Your task to perform on an android device: toggle priority inbox in the gmail app Image 0: 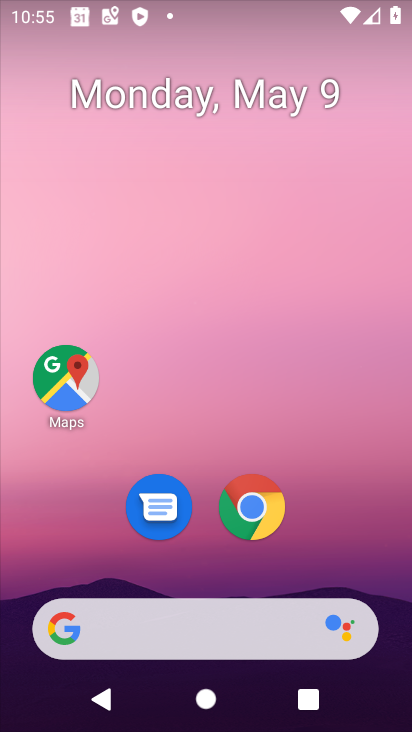
Step 0: drag from (211, 521) to (278, 64)
Your task to perform on an android device: toggle priority inbox in the gmail app Image 1: 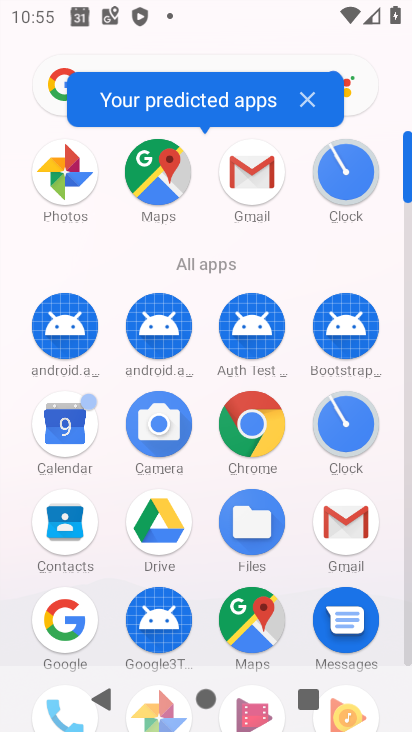
Step 1: click (242, 157)
Your task to perform on an android device: toggle priority inbox in the gmail app Image 2: 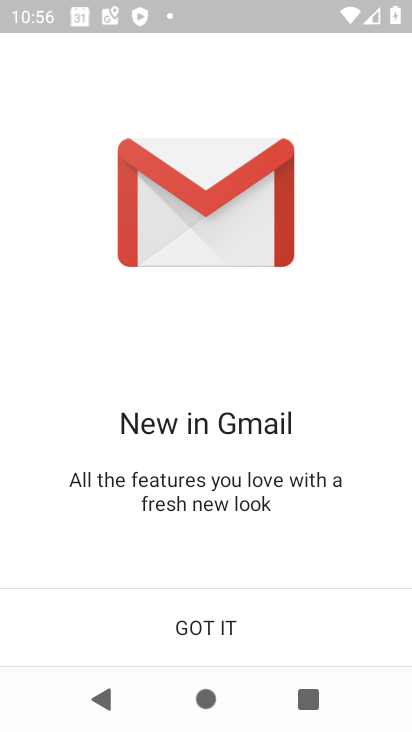
Step 2: click (221, 648)
Your task to perform on an android device: toggle priority inbox in the gmail app Image 3: 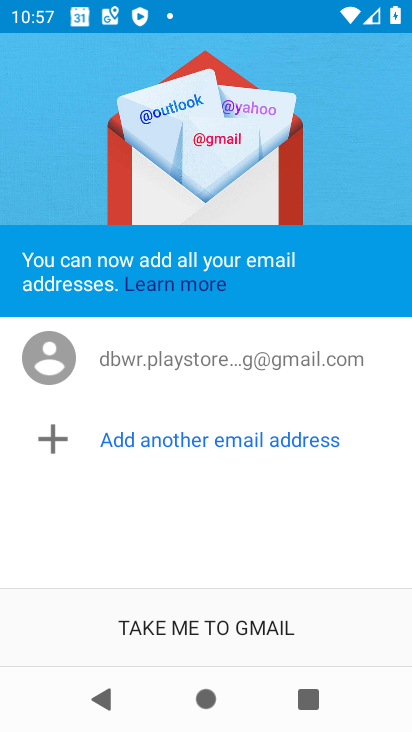
Step 3: click (195, 643)
Your task to perform on an android device: toggle priority inbox in the gmail app Image 4: 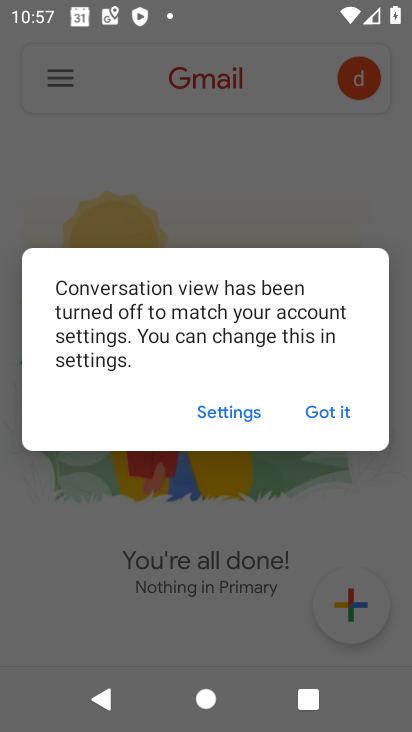
Step 4: click (323, 418)
Your task to perform on an android device: toggle priority inbox in the gmail app Image 5: 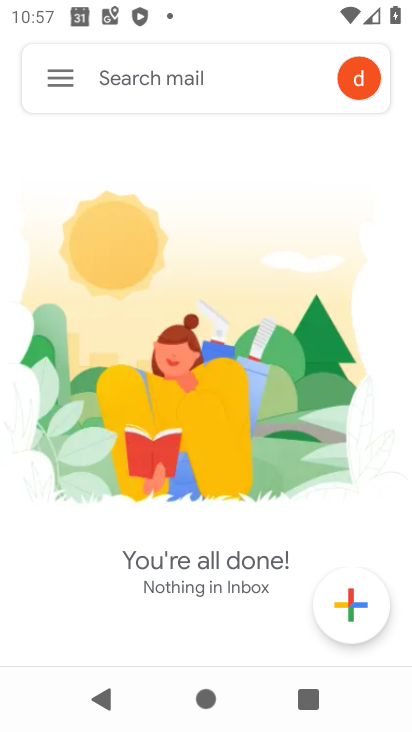
Step 5: click (72, 83)
Your task to perform on an android device: toggle priority inbox in the gmail app Image 6: 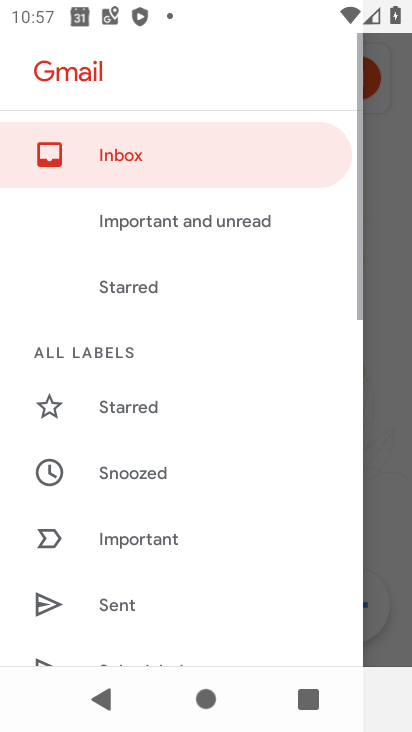
Step 6: drag from (204, 654) to (299, 21)
Your task to perform on an android device: toggle priority inbox in the gmail app Image 7: 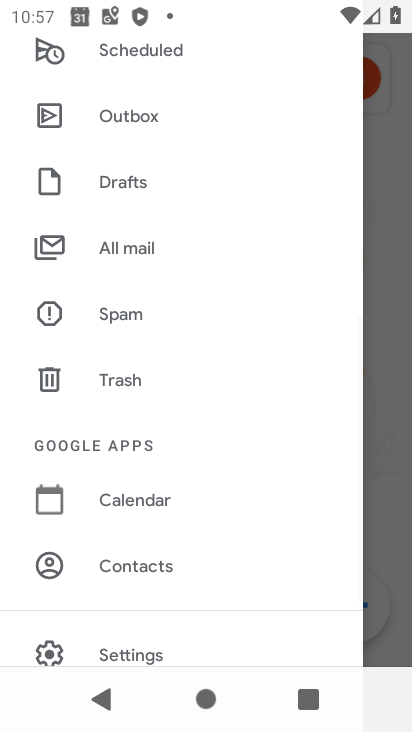
Step 7: drag from (182, 605) to (267, 52)
Your task to perform on an android device: toggle priority inbox in the gmail app Image 8: 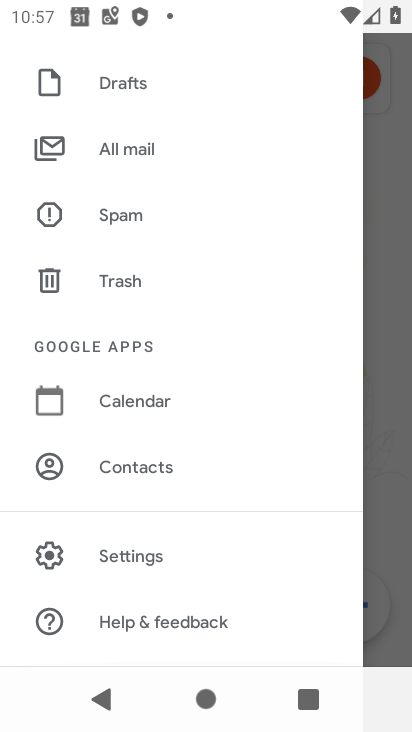
Step 8: click (137, 562)
Your task to perform on an android device: toggle priority inbox in the gmail app Image 9: 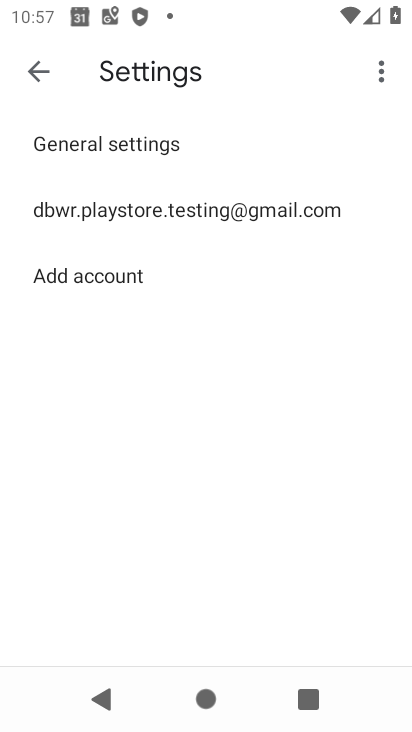
Step 9: click (135, 219)
Your task to perform on an android device: toggle priority inbox in the gmail app Image 10: 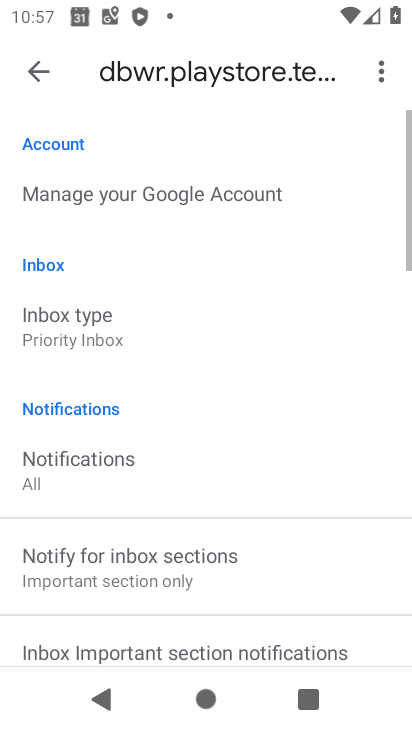
Step 10: click (90, 353)
Your task to perform on an android device: toggle priority inbox in the gmail app Image 11: 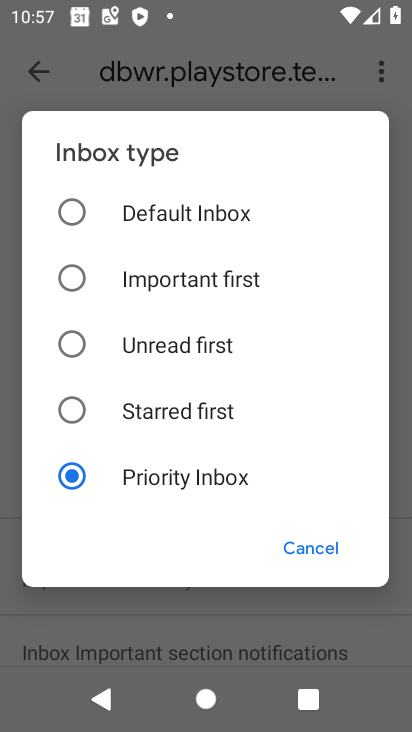
Step 11: click (86, 474)
Your task to perform on an android device: toggle priority inbox in the gmail app Image 12: 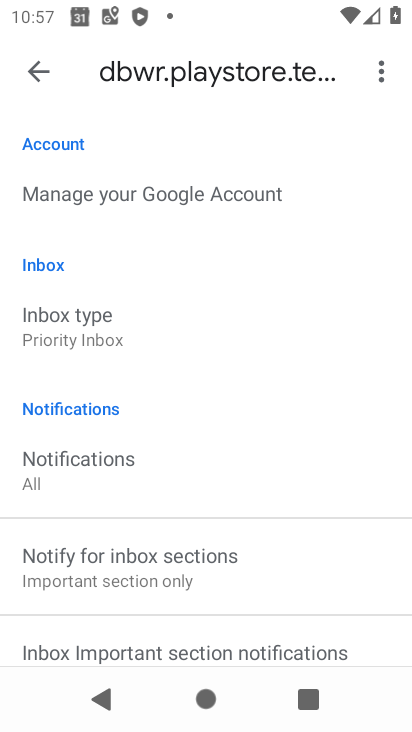
Step 12: task complete